Your task to perform on an android device: Toggle the flashlight Image 0: 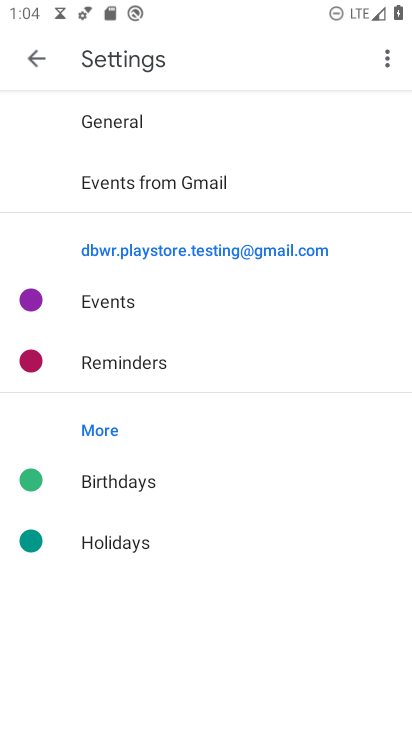
Step 0: press home button
Your task to perform on an android device: Toggle the flashlight Image 1: 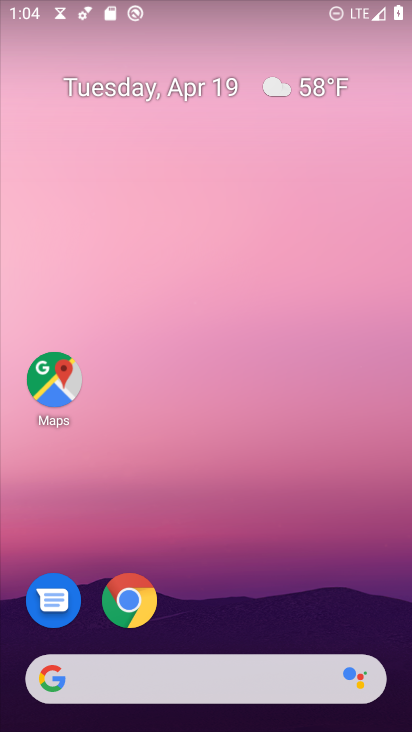
Step 1: task complete